Your task to perform on an android device: Find coffee shops on Maps Image 0: 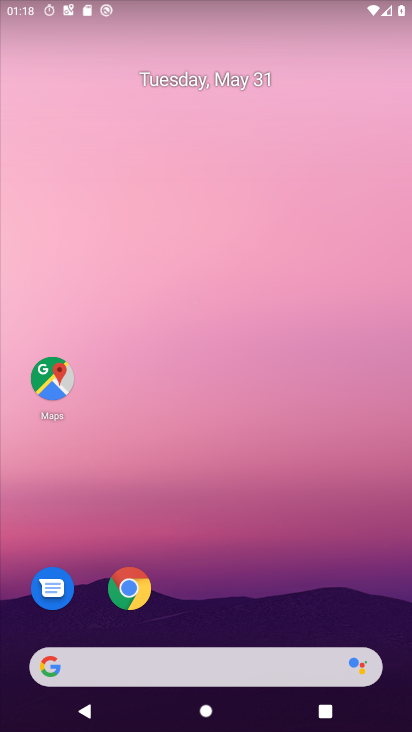
Step 0: drag from (307, 671) to (307, 73)
Your task to perform on an android device: Find coffee shops on Maps Image 1: 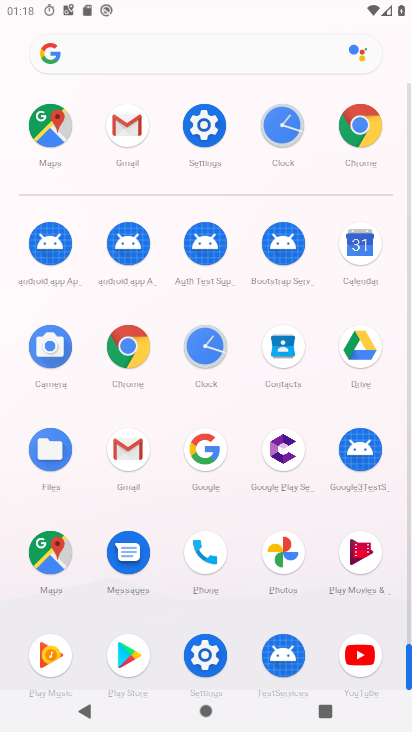
Step 1: click (90, 564)
Your task to perform on an android device: Find coffee shops on Maps Image 2: 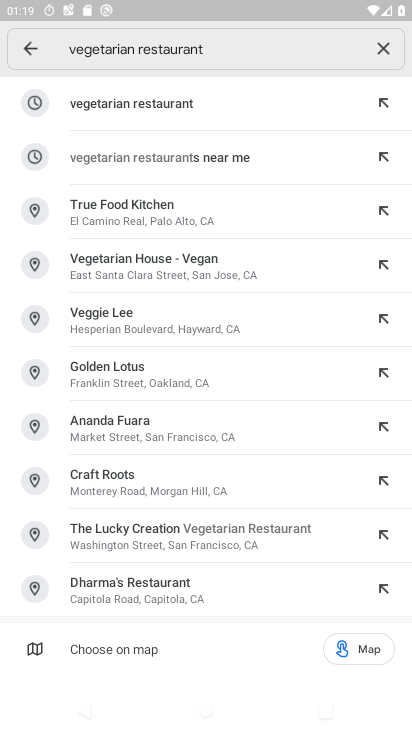
Step 2: click (384, 49)
Your task to perform on an android device: Find coffee shops on Maps Image 3: 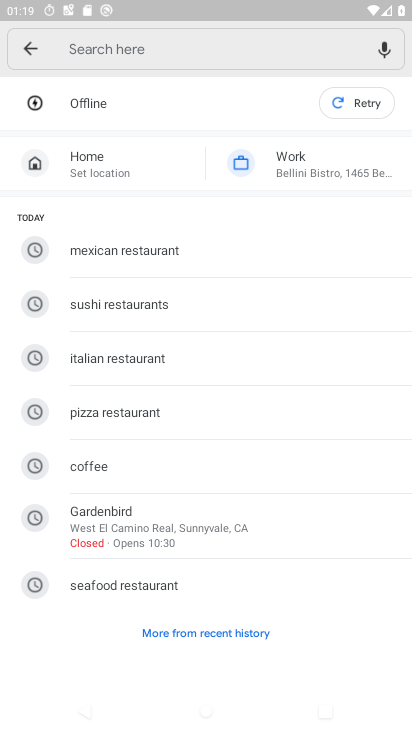
Step 3: click (274, 62)
Your task to perform on an android device: Find coffee shops on Maps Image 4: 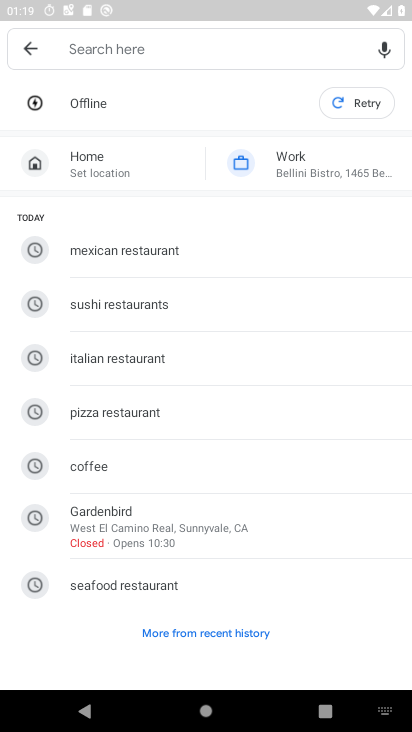
Step 4: type "coffee shops"
Your task to perform on an android device: Find coffee shops on Maps Image 5: 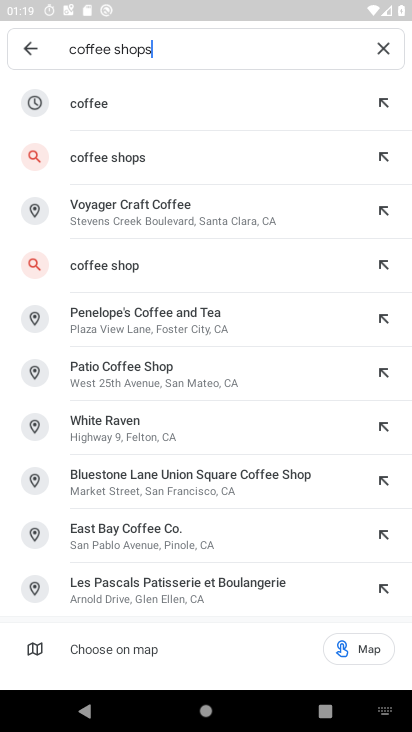
Step 5: click (164, 158)
Your task to perform on an android device: Find coffee shops on Maps Image 6: 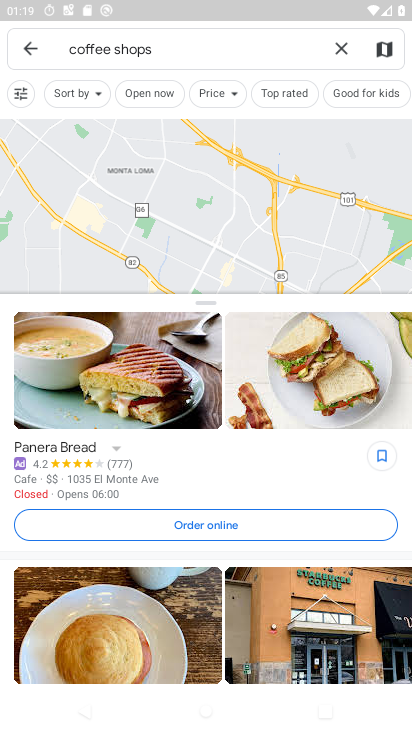
Step 6: task complete